Your task to perform on an android device: toggle improve location accuracy Image 0: 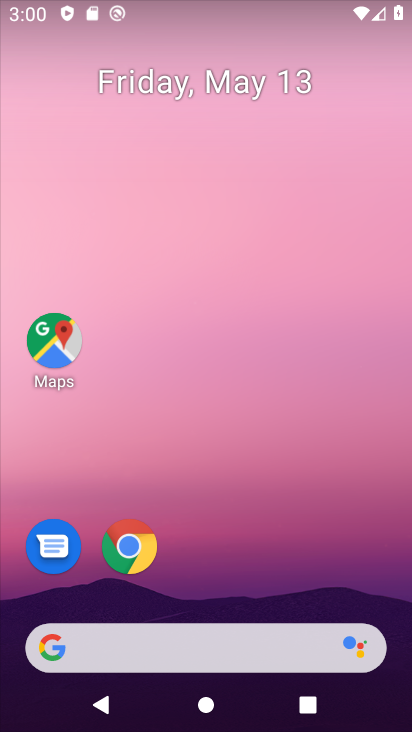
Step 0: drag from (226, 592) to (291, 124)
Your task to perform on an android device: toggle improve location accuracy Image 1: 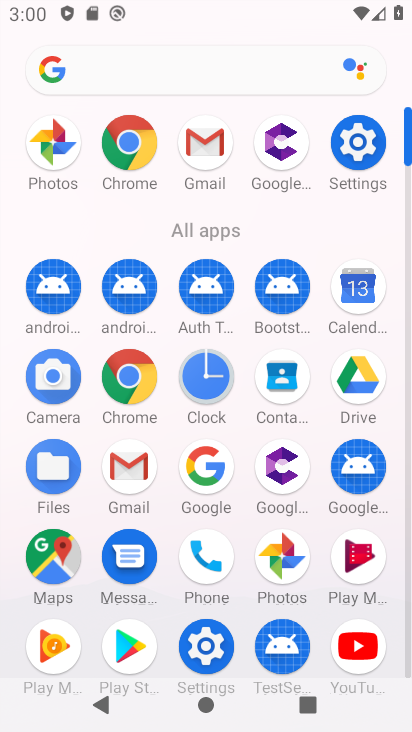
Step 1: click (341, 164)
Your task to perform on an android device: toggle improve location accuracy Image 2: 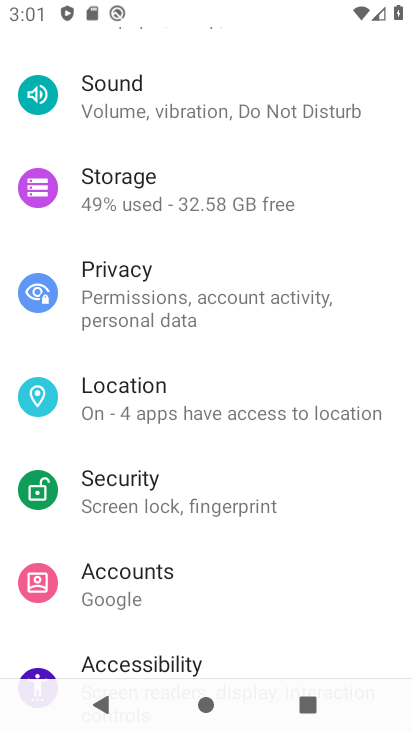
Step 2: click (123, 421)
Your task to perform on an android device: toggle improve location accuracy Image 3: 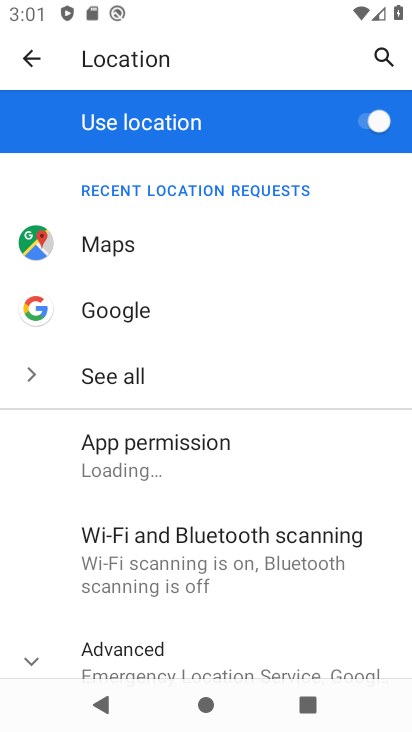
Step 3: click (115, 646)
Your task to perform on an android device: toggle improve location accuracy Image 4: 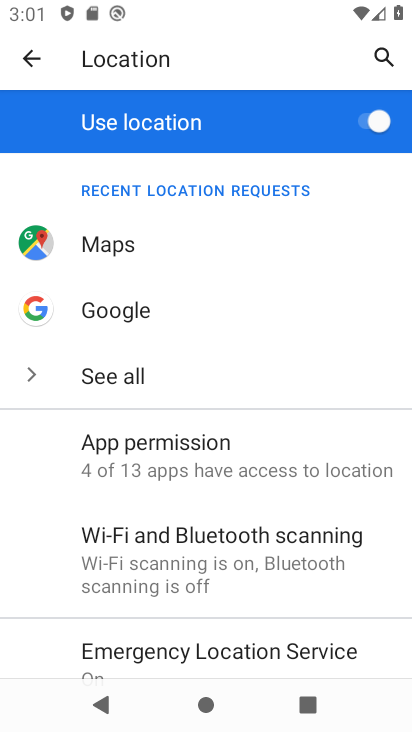
Step 4: drag from (195, 638) to (237, 218)
Your task to perform on an android device: toggle improve location accuracy Image 5: 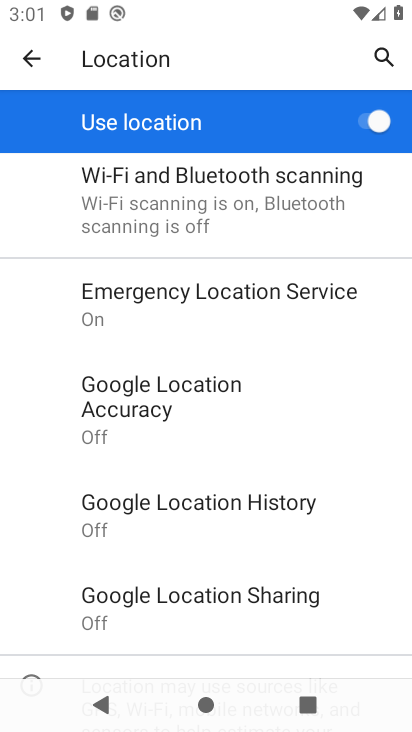
Step 5: click (219, 387)
Your task to perform on an android device: toggle improve location accuracy Image 6: 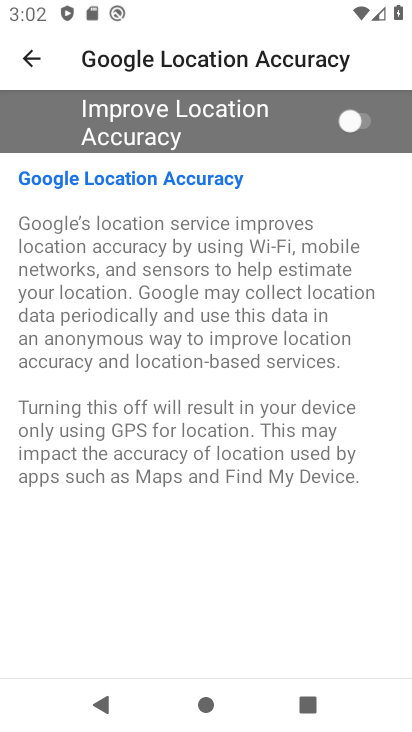
Step 6: click (368, 113)
Your task to perform on an android device: toggle improve location accuracy Image 7: 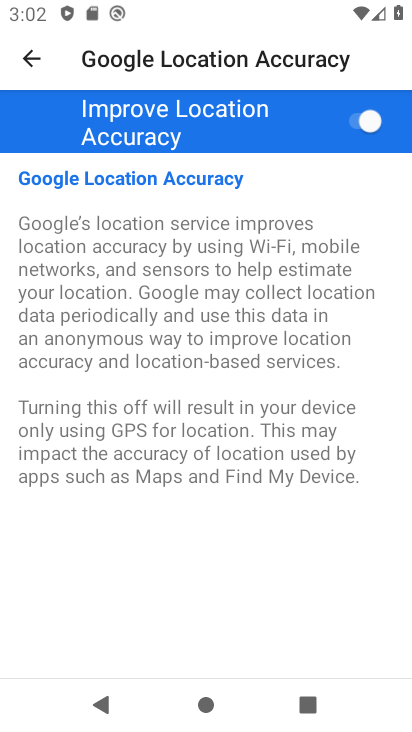
Step 7: click (368, 113)
Your task to perform on an android device: toggle improve location accuracy Image 8: 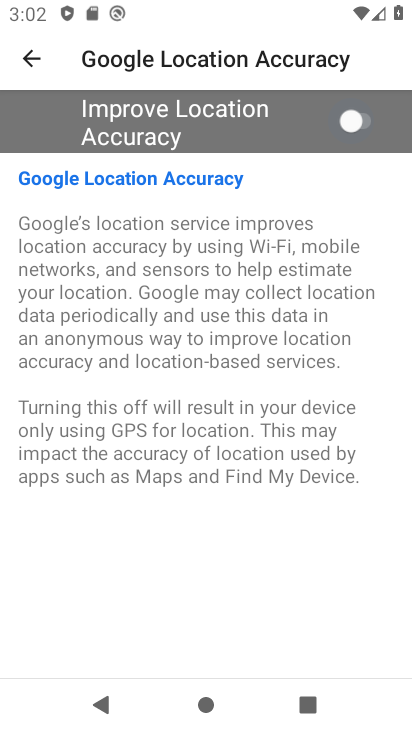
Step 8: click (368, 113)
Your task to perform on an android device: toggle improve location accuracy Image 9: 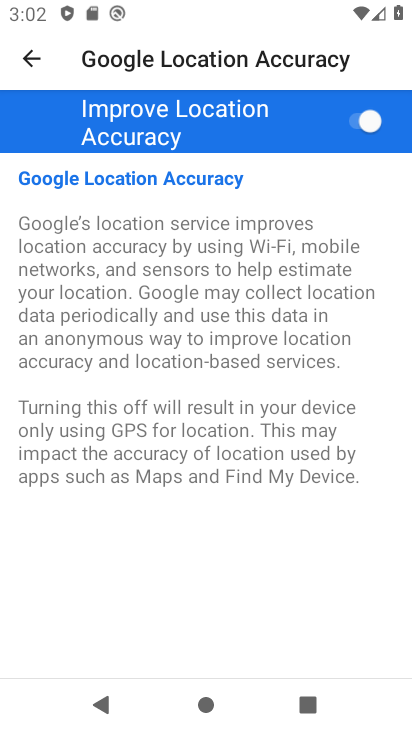
Step 9: task complete